Your task to perform on an android device: Open Youtube and go to "Your channel" Image 0: 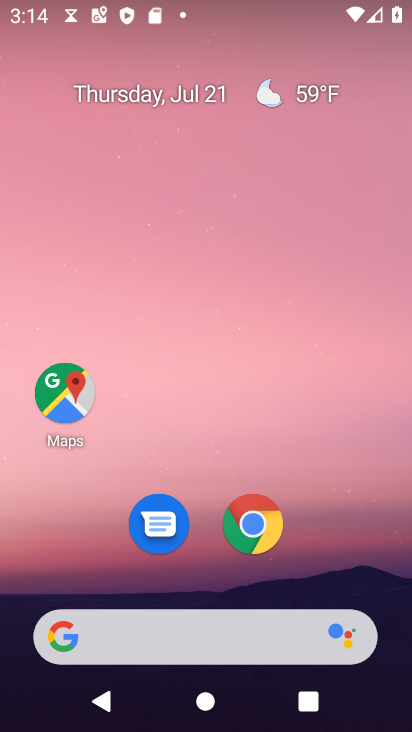
Step 0: press home button
Your task to perform on an android device: Open Youtube and go to "Your channel" Image 1: 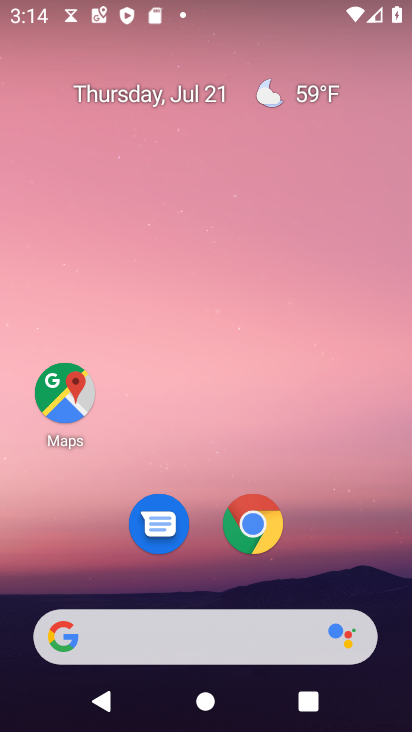
Step 1: drag from (202, 629) to (373, 15)
Your task to perform on an android device: Open Youtube and go to "Your channel" Image 2: 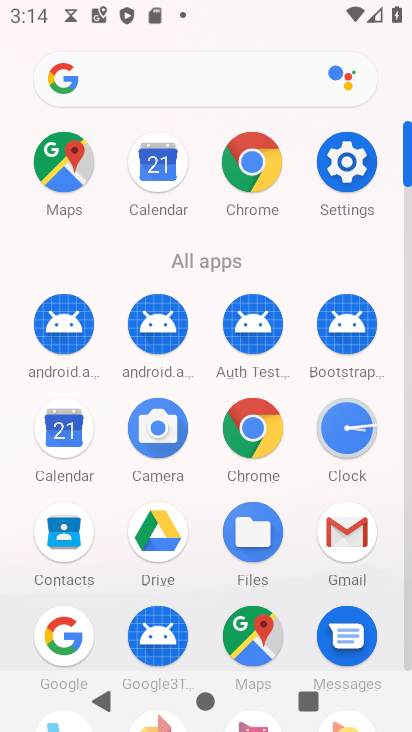
Step 2: drag from (200, 592) to (370, 67)
Your task to perform on an android device: Open Youtube and go to "Your channel" Image 3: 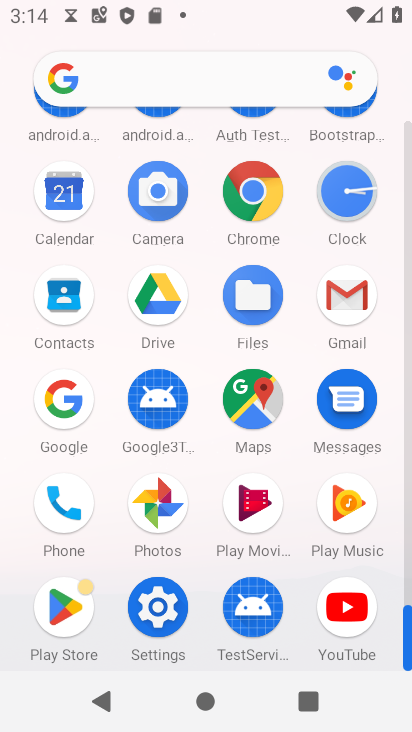
Step 3: click (344, 619)
Your task to perform on an android device: Open Youtube and go to "Your channel" Image 4: 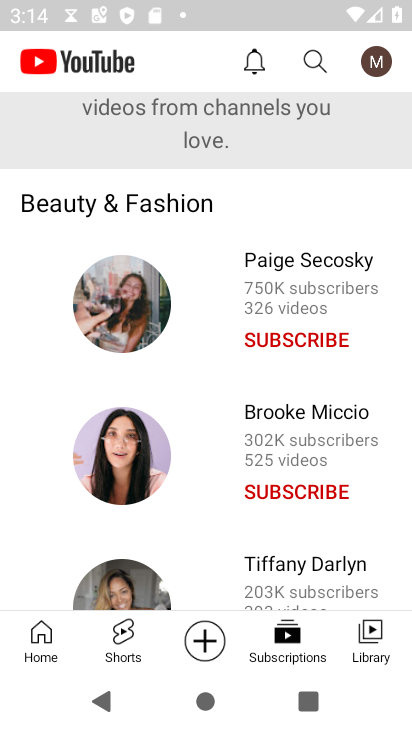
Step 4: click (374, 54)
Your task to perform on an android device: Open Youtube and go to "Your channel" Image 5: 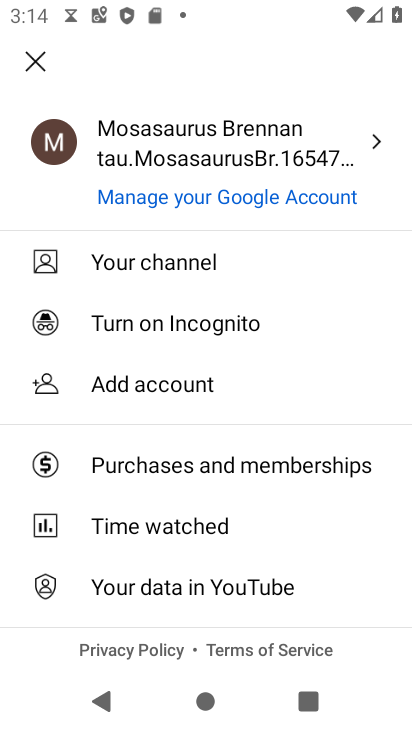
Step 5: click (199, 256)
Your task to perform on an android device: Open Youtube and go to "Your channel" Image 6: 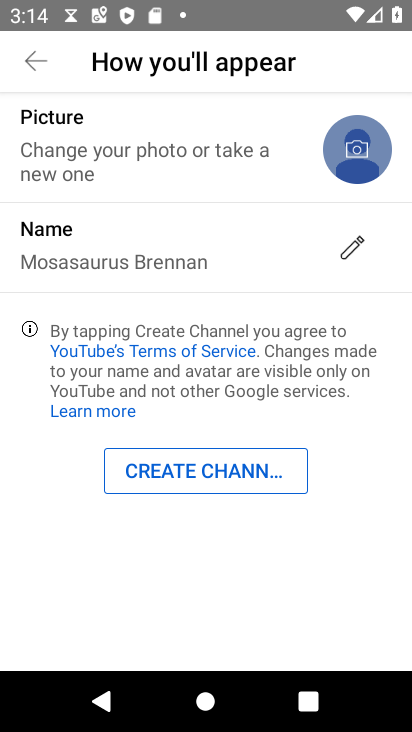
Step 6: task complete